Your task to perform on an android device: show emergency info Image 0: 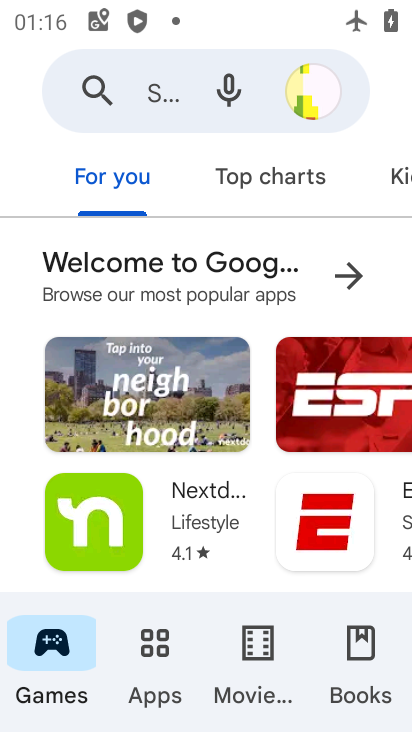
Step 0: press home button
Your task to perform on an android device: show emergency info Image 1: 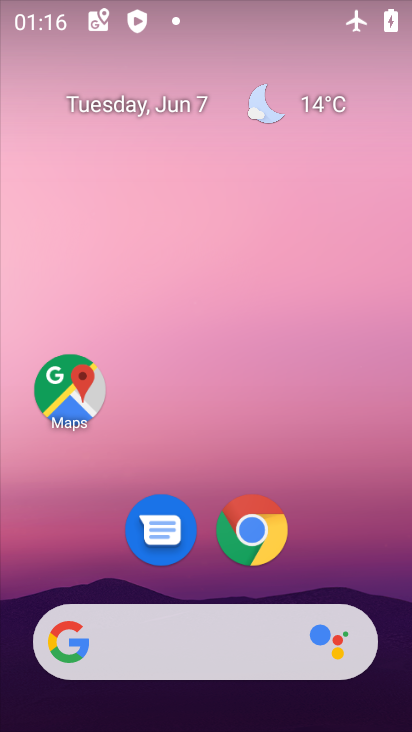
Step 1: drag from (328, 575) to (295, 204)
Your task to perform on an android device: show emergency info Image 2: 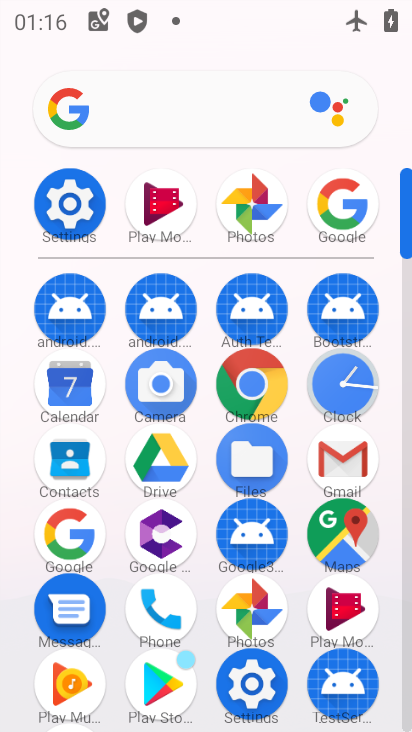
Step 2: click (70, 203)
Your task to perform on an android device: show emergency info Image 3: 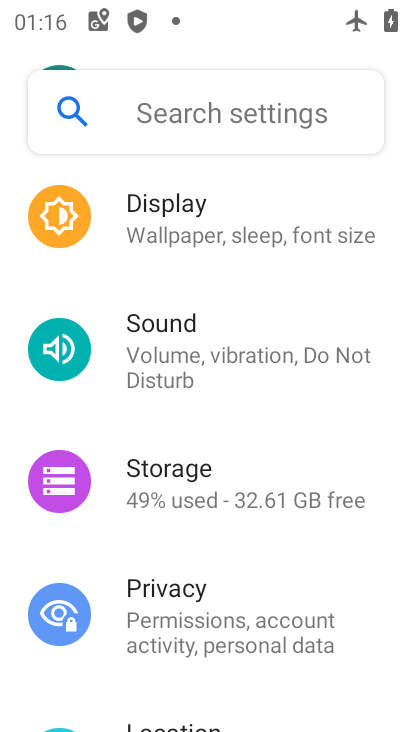
Step 3: drag from (184, 629) to (198, 146)
Your task to perform on an android device: show emergency info Image 4: 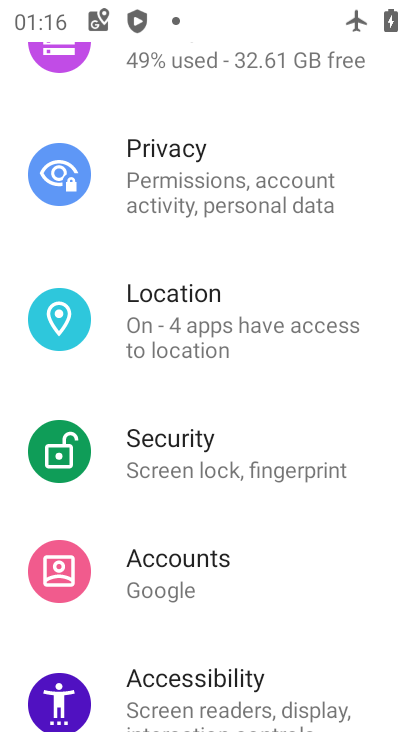
Step 4: drag from (232, 684) to (219, 305)
Your task to perform on an android device: show emergency info Image 5: 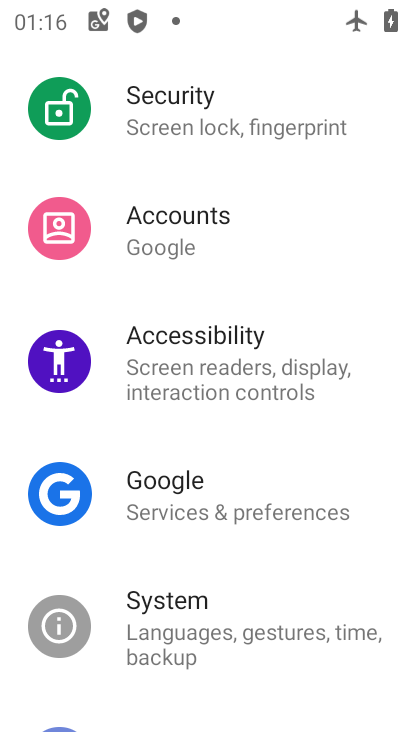
Step 5: drag from (202, 639) to (197, 188)
Your task to perform on an android device: show emergency info Image 6: 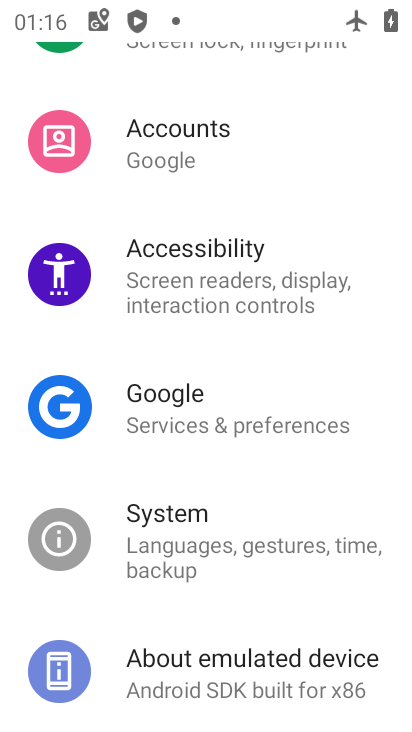
Step 6: click (190, 672)
Your task to perform on an android device: show emergency info Image 7: 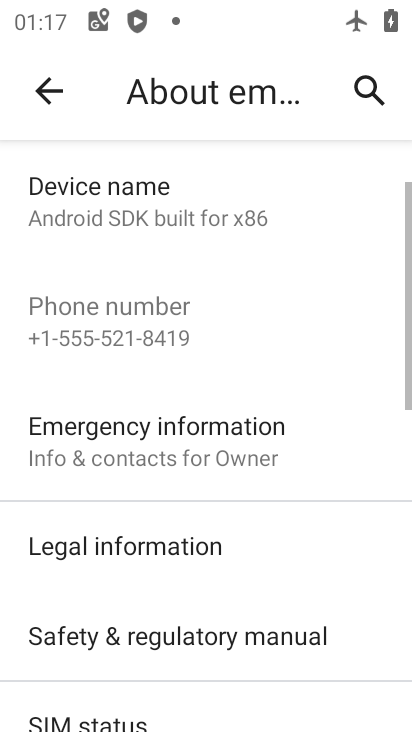
Step 7: click (172, 443)
Your task to perform on an android device: show emergency info Image 8: 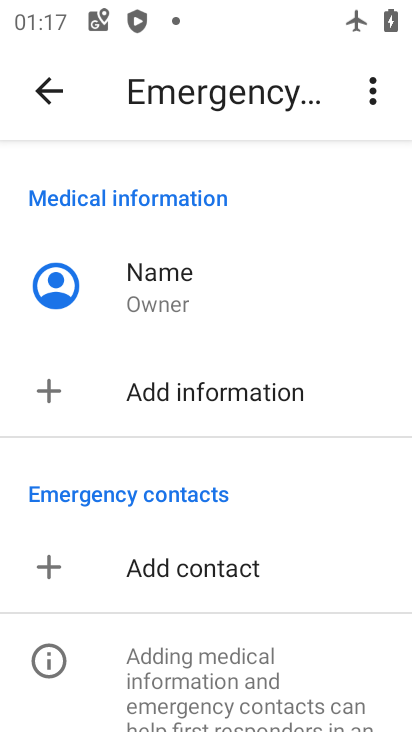
Step 8: task complete